Your task to perform on an android device: toggle notifications settings in the gmail app Image 0: 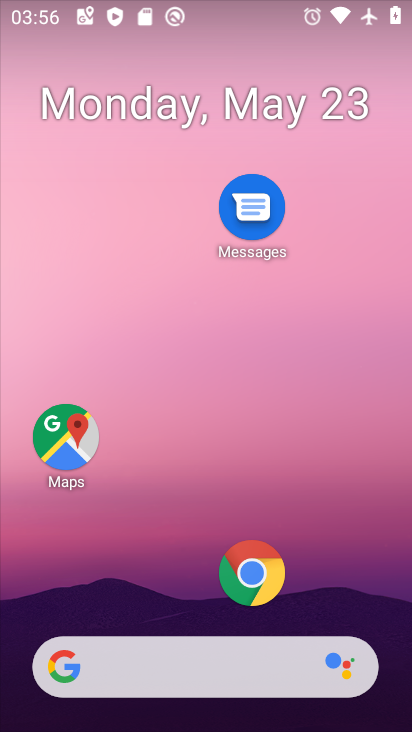
Step 0: drag from (367, 649) to (382, 4)
Your task to perform on an android device: toggle notifications settings in the gmail app Image 1: 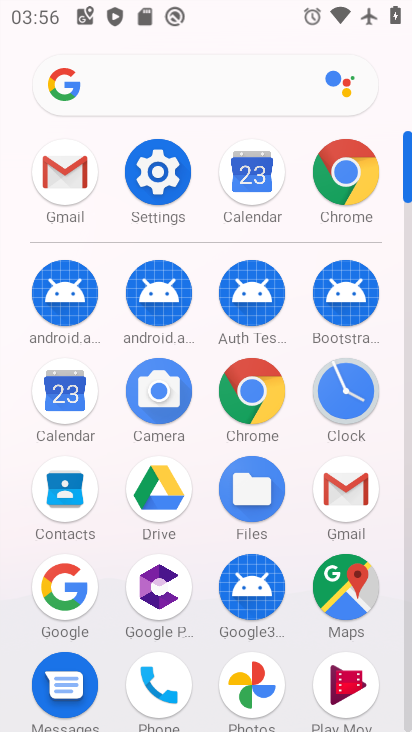
Step 1: click (357, 486)
Your task to perform on an android device: toggle notifications settings in the gmail app Image 2: 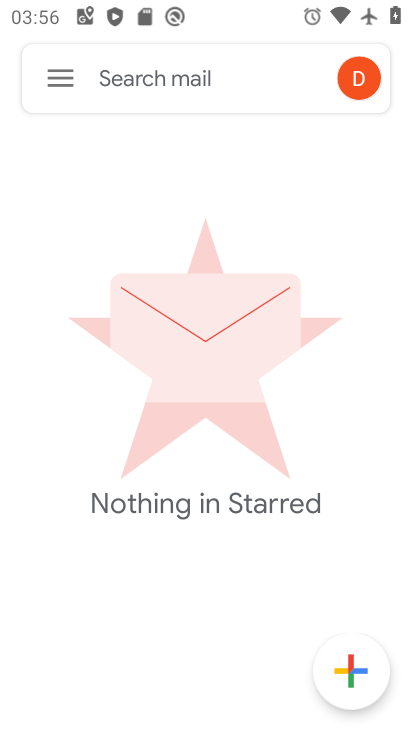
Step 2: click (58, 63)
Your task to perform on an android device: toggle notifications settings in the gmail app Image 3: 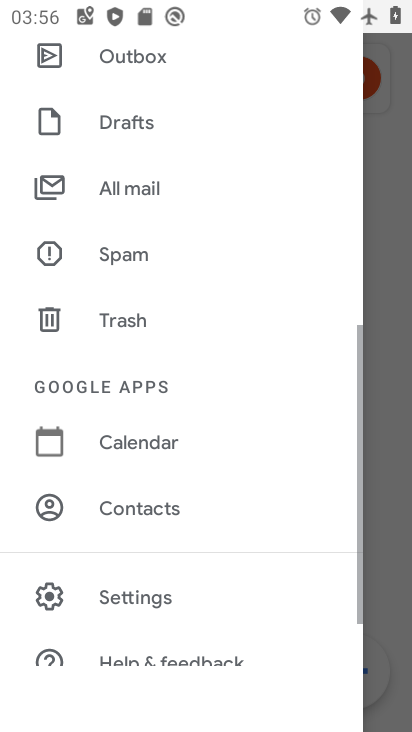
Step 3: click (171, 601)
Your task to perform on an android device: toggle notifications settings in the gmail app Image 4: 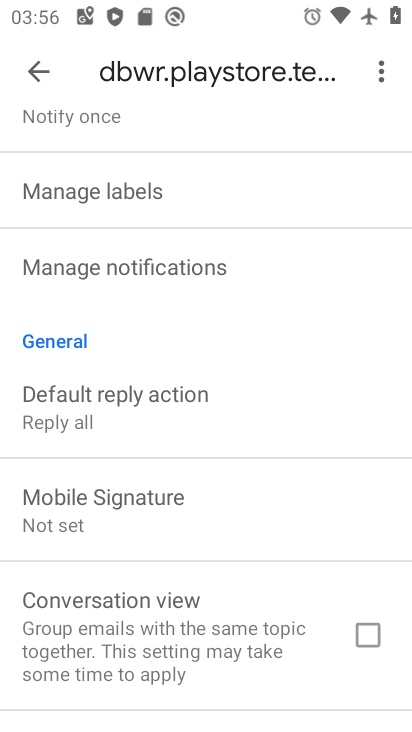
Step 4: click (178, 253)
Your task to perform on an android device: toggle notifications settings in the gmail app Image 5: 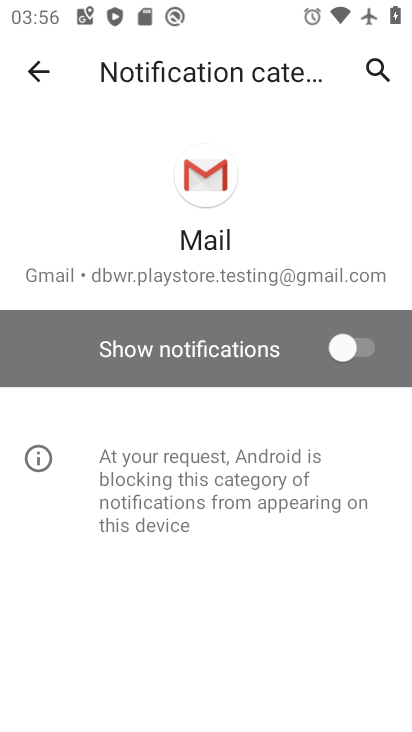
Step 5: click (359, 345)
Your task to perform on an android device: toggle notifications settings in the gmail app Image 6: 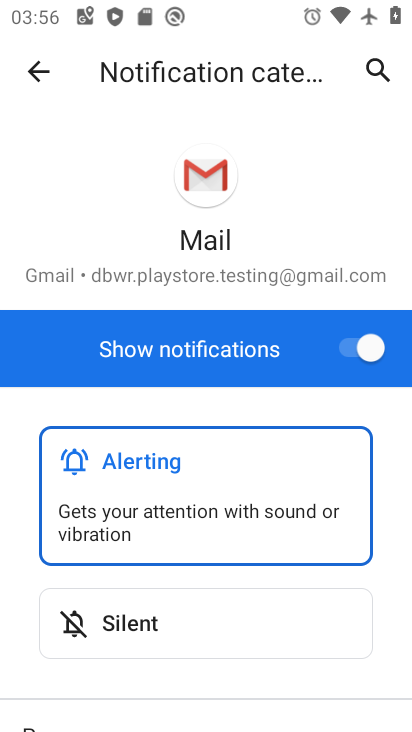
Step 6: task complete